Your task to perform on an android device: Go to wifi settings Image 0: 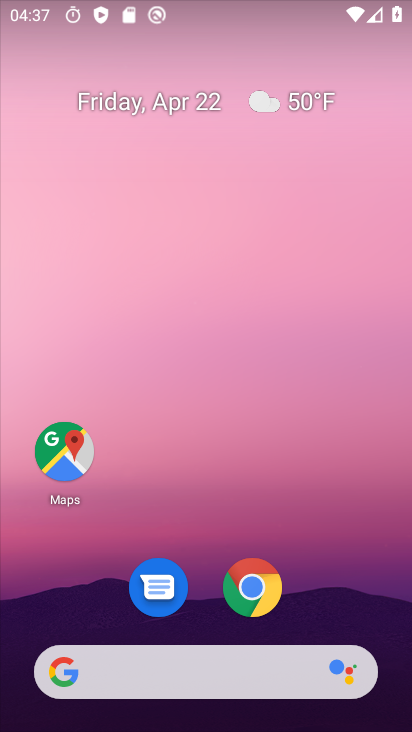
Step 0: drag from (347, 542) to (371, 7)
Your task to perform on an android device: Go to wifi settings Image 1: 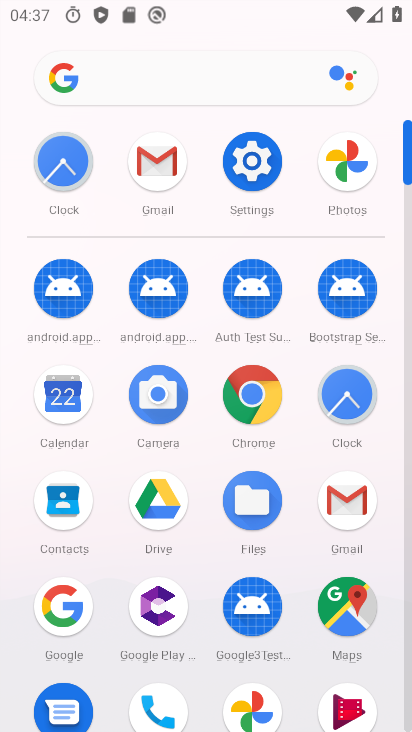
Step 1: click (254, 162)
Your task to perform on an android device: Go to wifi settings Image 2: 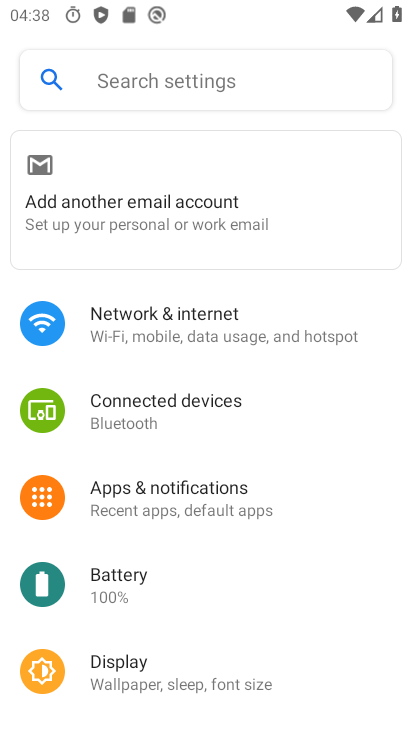
Step 2: click (134, 328)
Your task to perform on an android device: Go to wifi settings Image 3: 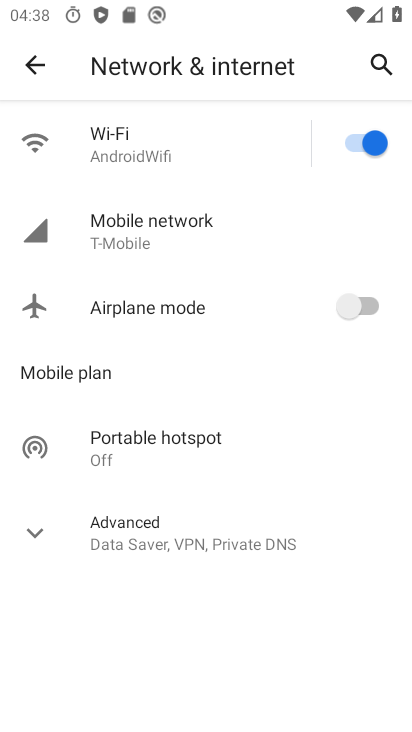
Step 3: click (116, 151)
Your task to perform on an android device: Go to wifi settings Image 4: 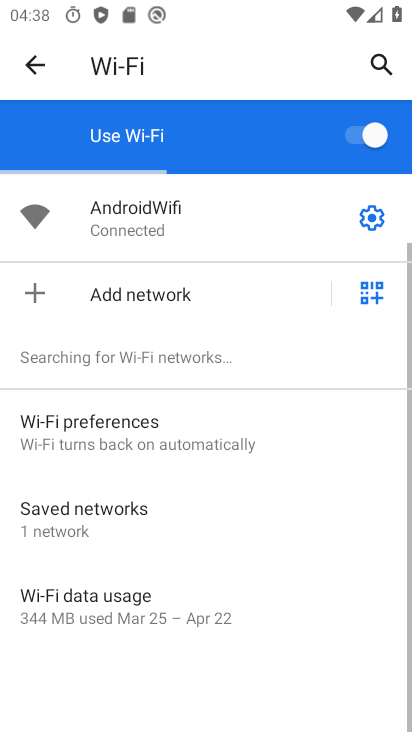
Step 4: task complete